Your task to perform on an android device: Search for Italian restaurants on Maps Image 0: 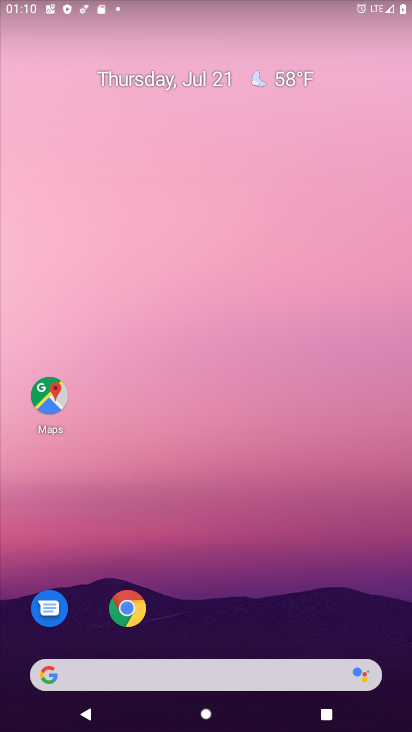
Step 0: press home button
Your task to perform on an android device: Search for Italian restaurants on Maps Image 1: 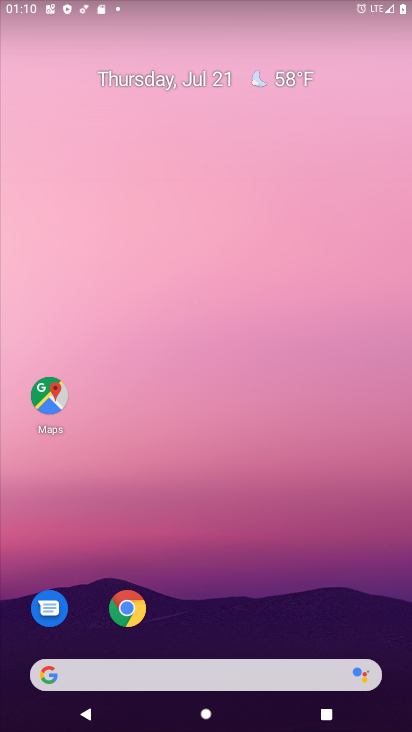
Step 1: click (49, 392)
Your task to perform on an android device: Search for Italian restaurants on Maps Image 2: 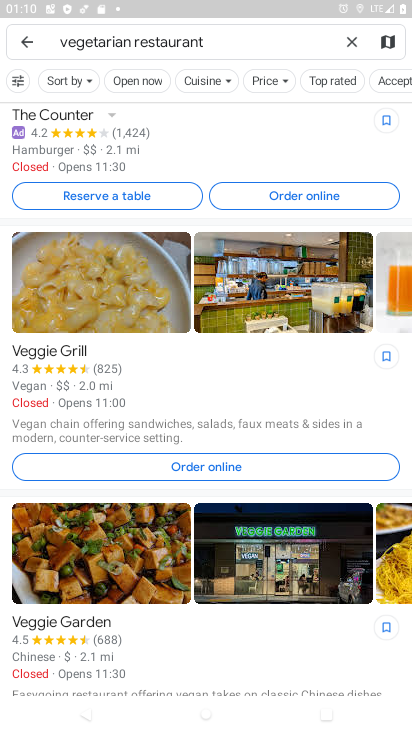
Step 2: click (352, 39)
Your task to perform on an android device: Search for Italian restaurants on Maps Image 3: 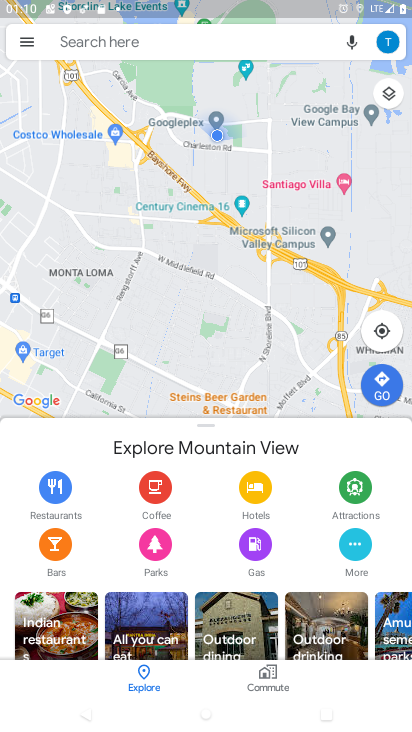
Step 3: click (81, 35)
Your task to perform on an android device: Search for Italian restaurants on Maps Image 4: 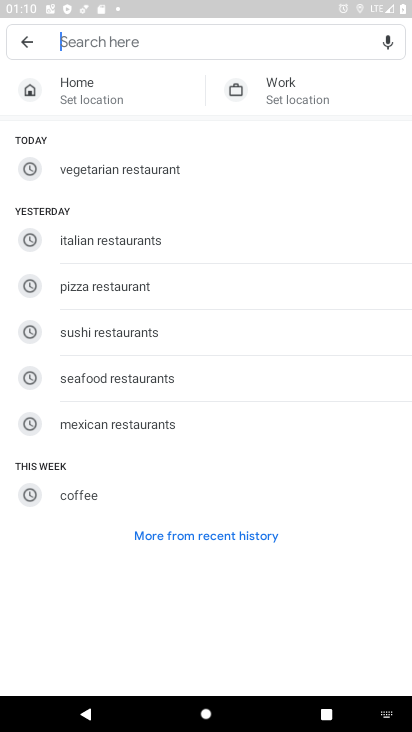
Step 4: type "italian"
Your task to perform on an android device: Search for Italian restaurants on Maps Image 5: 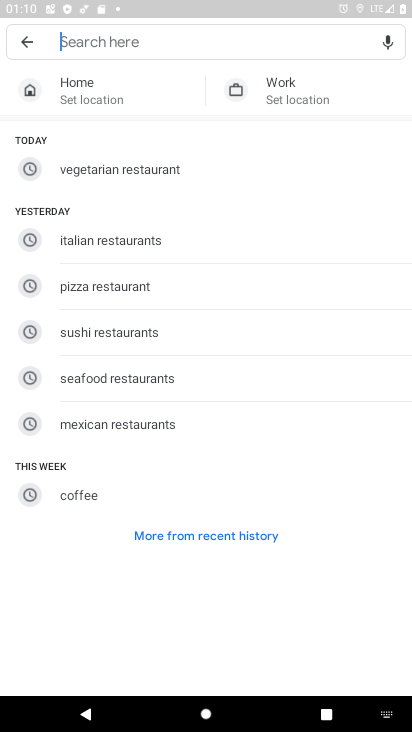
Step 5: click (177, 234)
Your task to perform on an android device: Search for Italian restaurants on Maps Image 6: 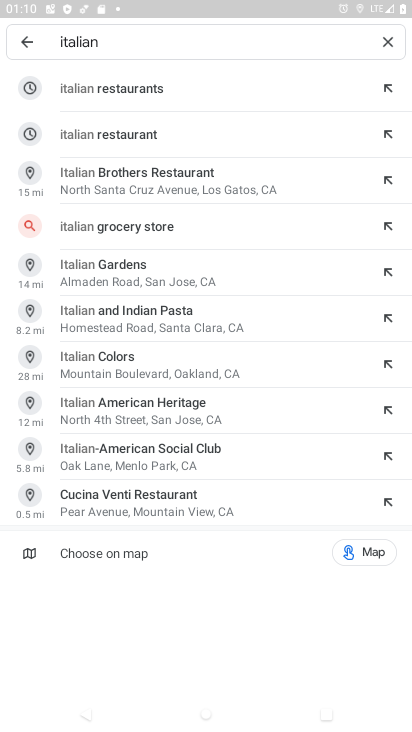
Step 6: click (169, 81)
Your task to perform on an android device: Search for Italian restaurants on Maps Image 7: 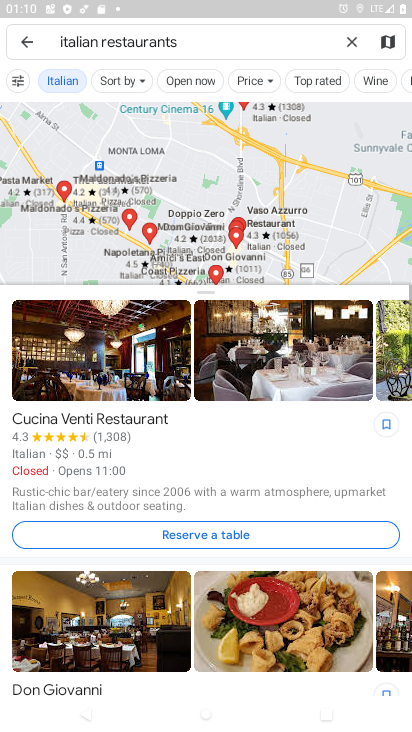
Step 7: drag from (210, 271) to (206, 536)
Your task to perform on an android device: Search for Italian restaurants on Maps Image 8: 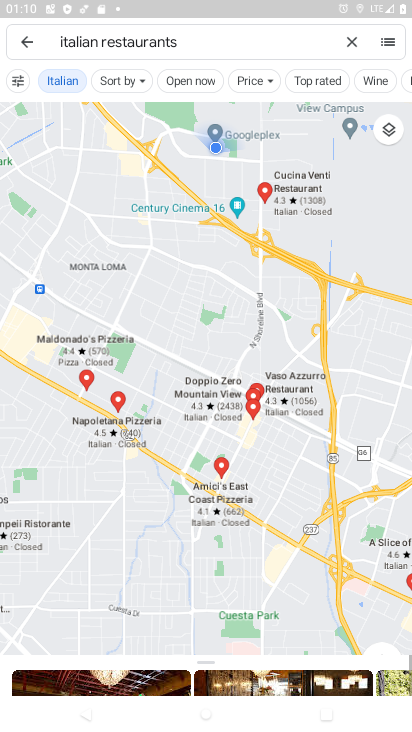
Step 8: drag from (212, 644) to (253, 90)
Your task to perform on an android device: Search for Italian restaurants on Maps Image 9: 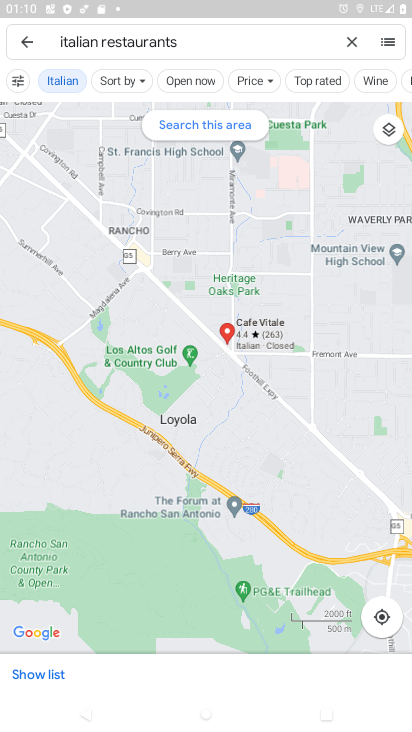
Step 9: click (203, 33)
Your task to perform on an android device: Search for Italian restaurants on Maps Image 10: 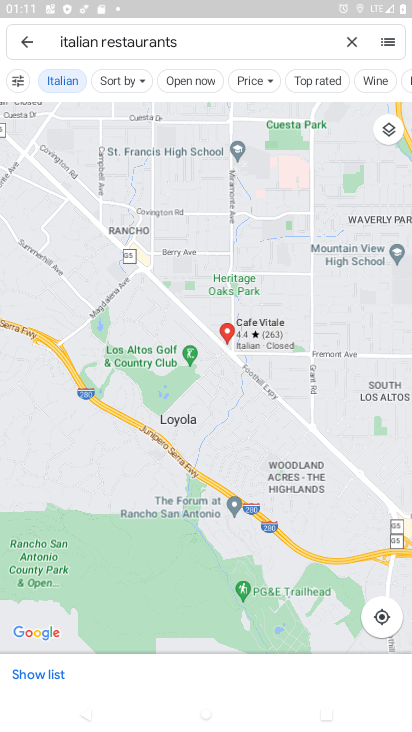
Step 10: click (187, 129)
Your task to perform on an android device: Search for Italian restaurants on Maps Image 11: 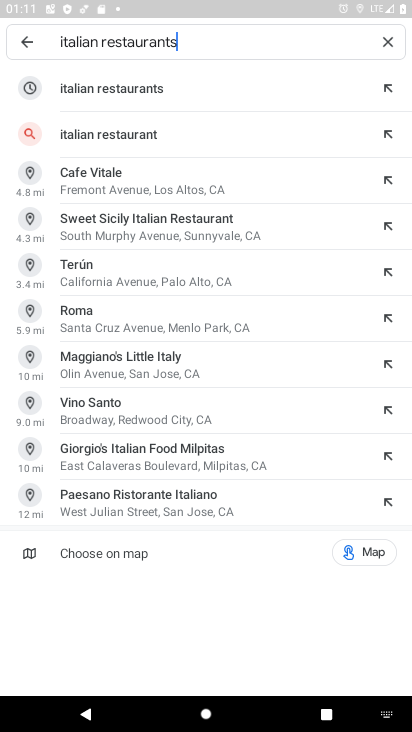
Step 11: click (190, 92)
Your task to perform on an android device: Search for Italian restaurants on Maps Image 12: 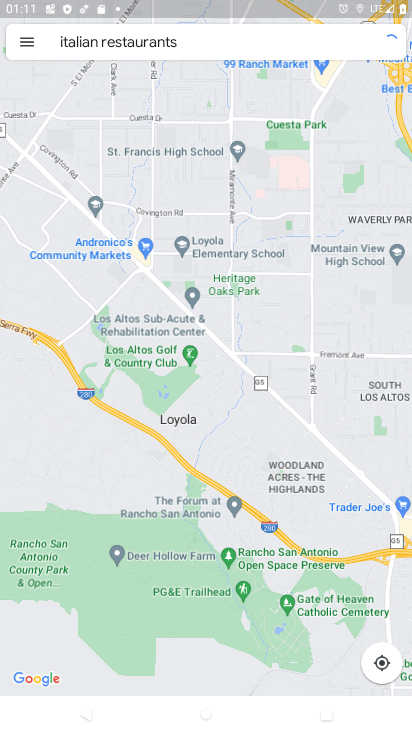
Step 12: task complete